Your task to perform on an android device: Open Google Maps and go to "Timeline" Image 0: 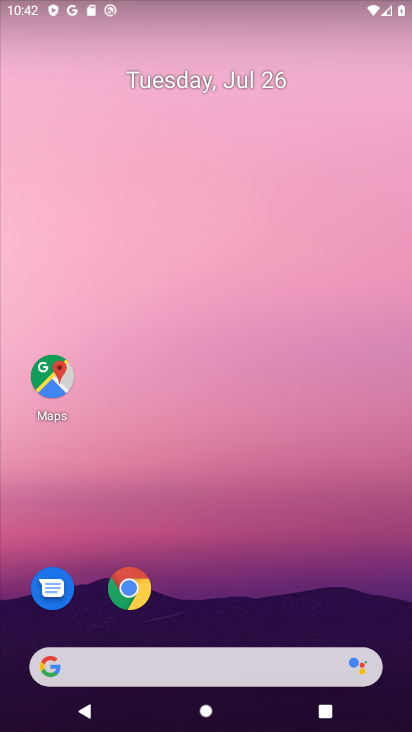
Step 0: drag from (196, 622) to (277, 61)
Your task to perform on an android device: Open Google Maps and go to "Timeline" Image 1: 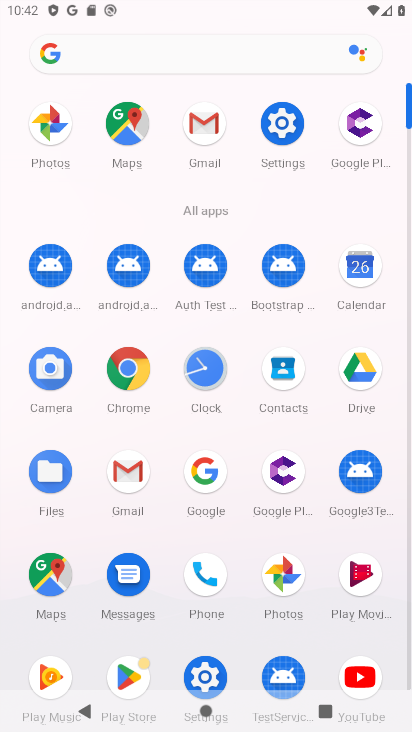
Step 1: click (126, 116)
Your task to perform on an android device: Open Google Maps and go to "Timeline" Image 2: 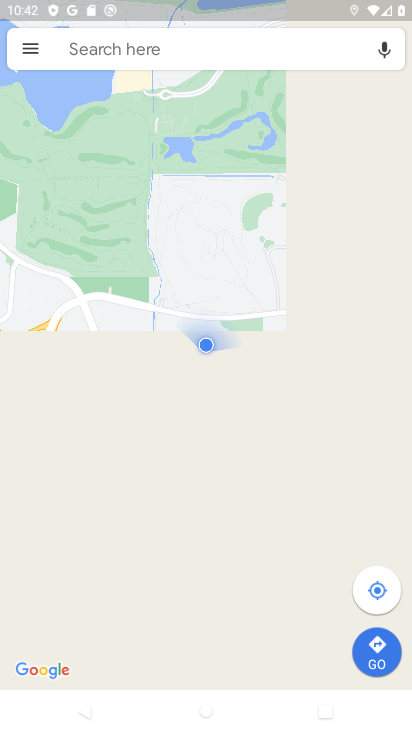
Step 2: click (27, 38)
Your task to perform on an android device: Open Google Maps and go to "Timeline" Image 3: 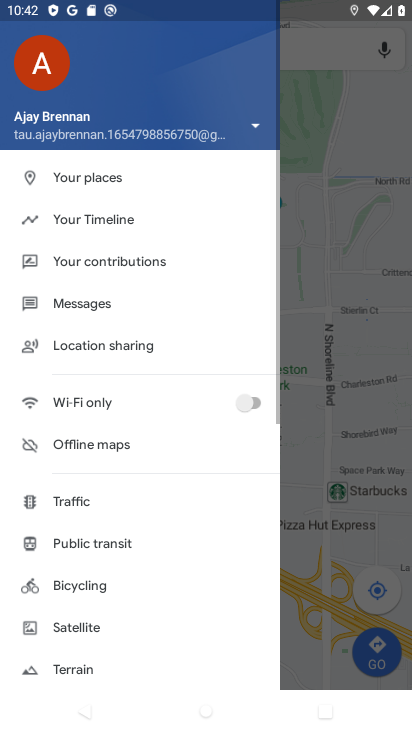
Step 3: click (120, 218)
Your task to perform on an android device: Open Google Maps and go to "Timeline" Image 4: 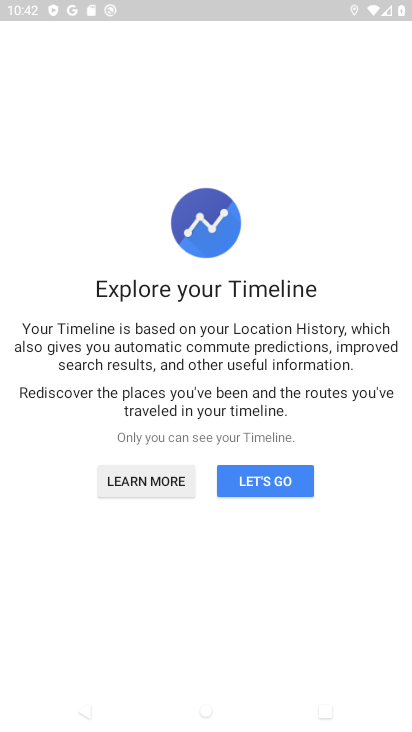
Step 4: click (265, 486)
Your task to perform on an android device: Open Google Maps and go to "Timeline" Image 5: 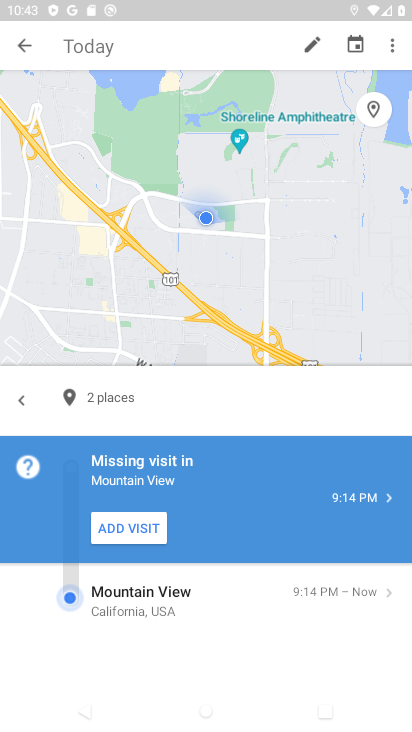
Step 5: task complete